Your task to perform on an android device: visit the assistant section in the google photos Image 0: 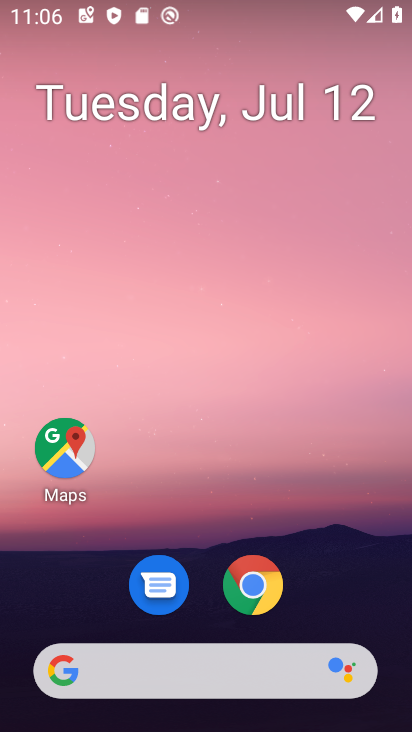
Step 0: drag from (328, 566) to (282, 55)
Your task to perform on an android device: visit the assistant section in the google photos Image 1: 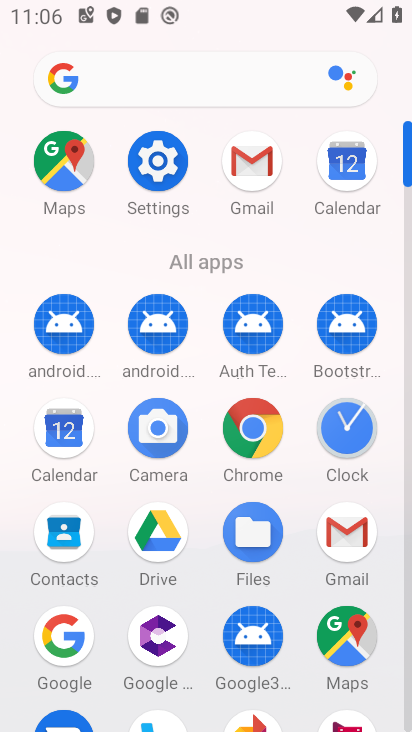
Step 1: drag from (302, 522) to (282, 295)
Your task to perform on an android device: visit the assistant section in the google photos Image 2: 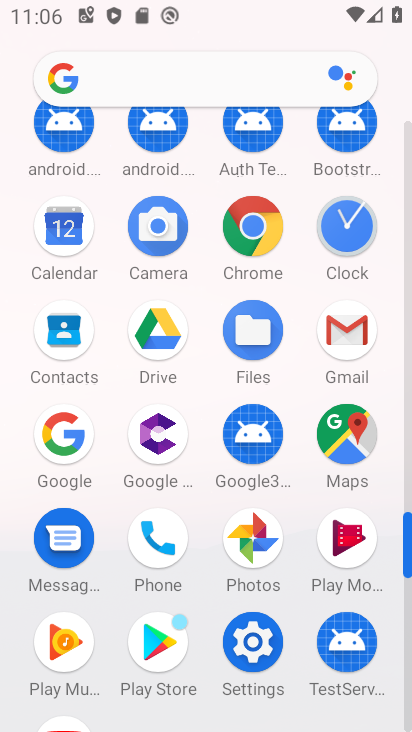
Step 2: click (252, 544)
Your task to perform on an android device: visit the assistant section in the google photos Image 3: 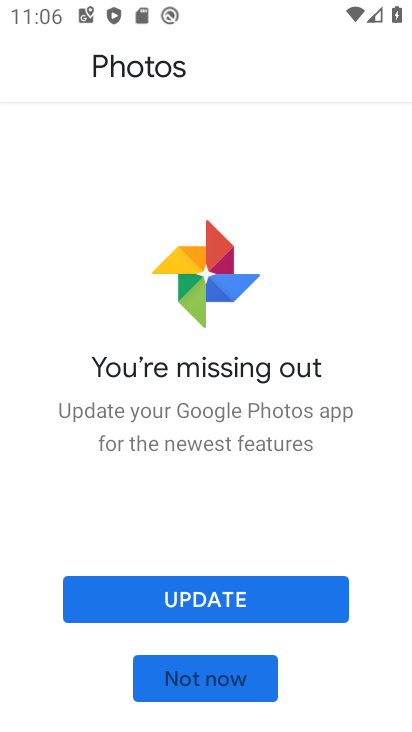
Step 3: click (227, 677)
Your task to perform on an android device: visit the assistant section in the google photos Image 4: 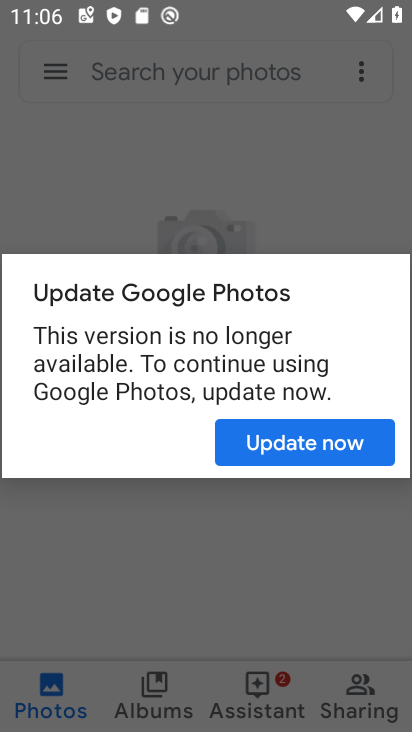
Step 4: click (314, 438)
Your task to perform on an android device: visit the assistant section in the google photos Image 5: 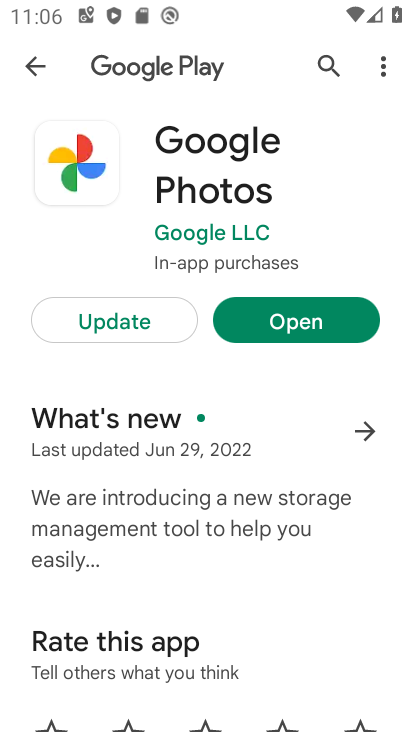
Step 5: click (291, 332)
Your task to perform on an android device: visit the assistant section in the google photos Image 6: 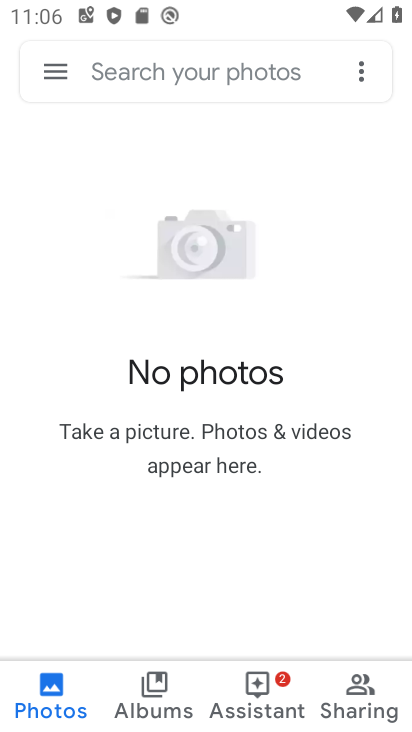
Step 6: click (250, 677)
Your task to perform on an android device: visit the assistant section in the google photos Image 7: 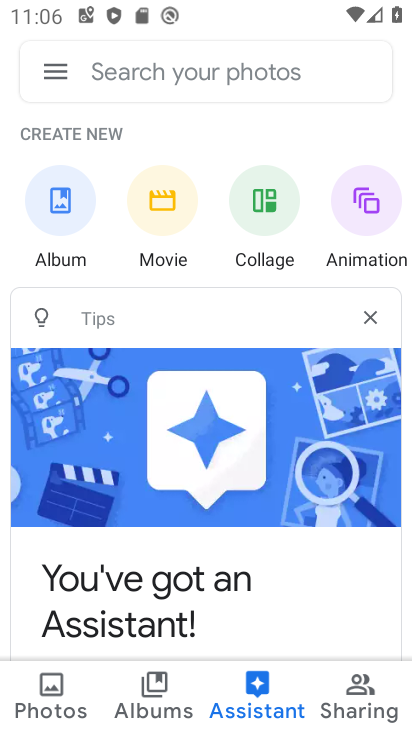
Step 7: task complete